Your task to perform on an android device: Go to internet settings Image 0: 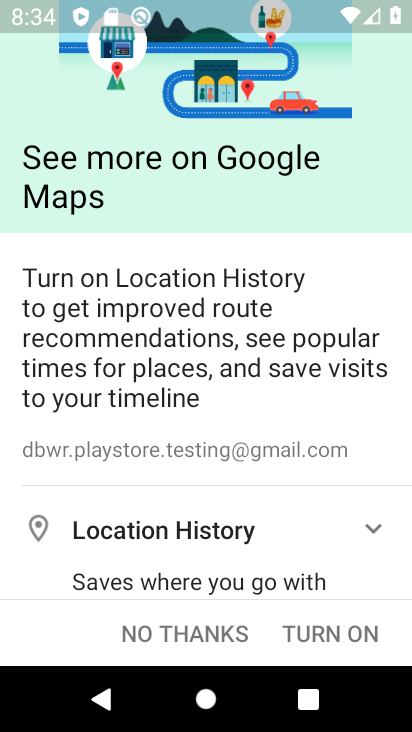
Step 0: press home button
Your task to perform on an android device: Go to internet settings Image 1: 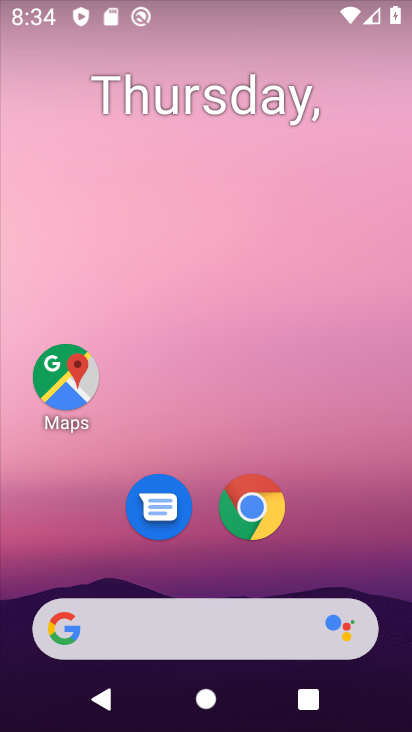
Step 1: drag from (201, 578) to (232, 48)
Your task to perform on an android device: Go to internet settings Image 2: 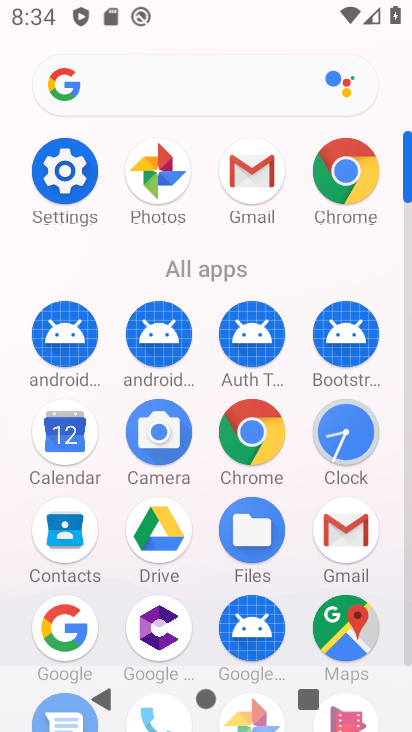
Step 2: click (78, 189)
Your task to perform on an android device: Go to internet settings Image 3: 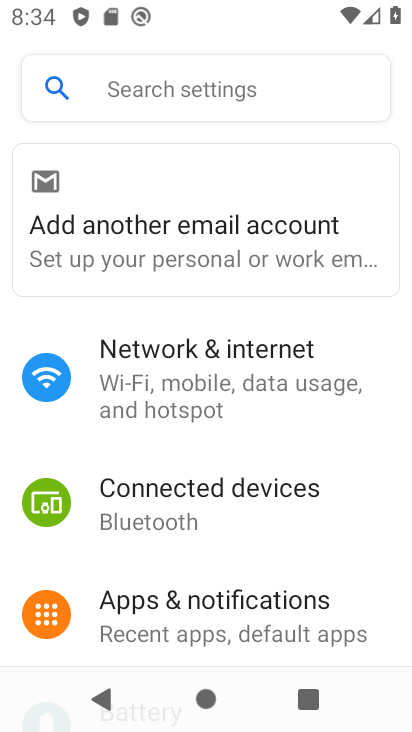
Step 3: click (210, 413)
Your task to perform on an android device: Go to internet settings Image 4: 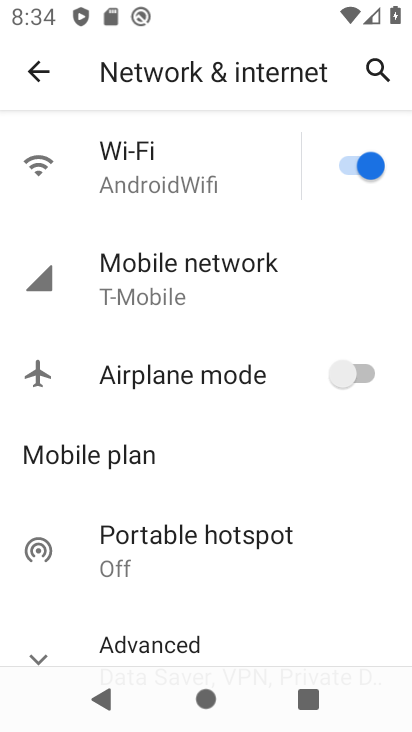
Step 4: click (232, 279)
Your task to perform on an android device: Go to internet settings Image 5: 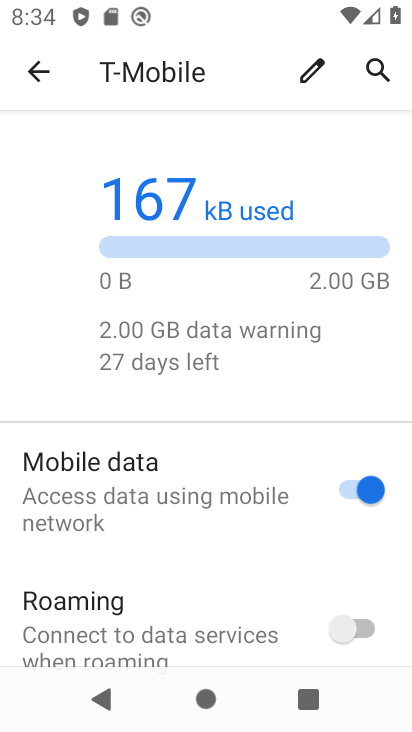
Step 5: task complete